Your task to perform on an android device: Open Android settings Image 0: 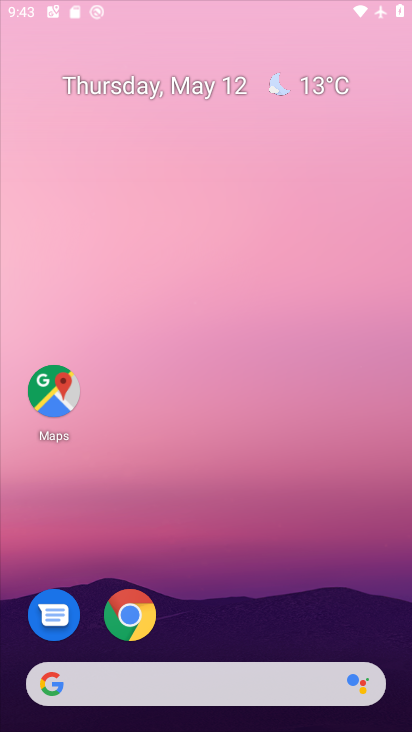
Step 0: click (288, 130)
Your task to perform on an android device: Open Android settings Image 1: 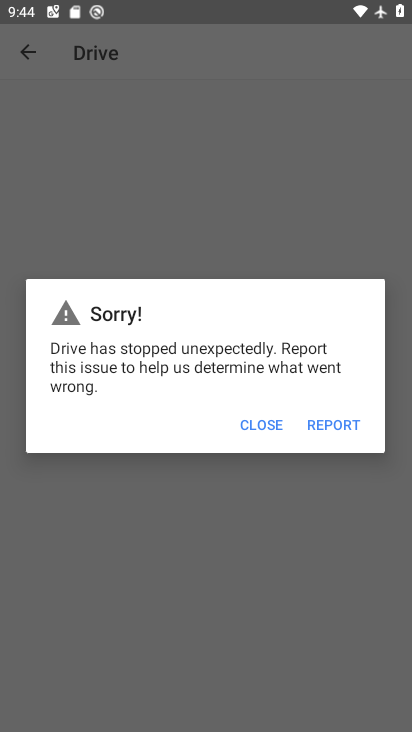
Step 1: press home button
Your task to perform on an android device: Open Android settings Image 2: 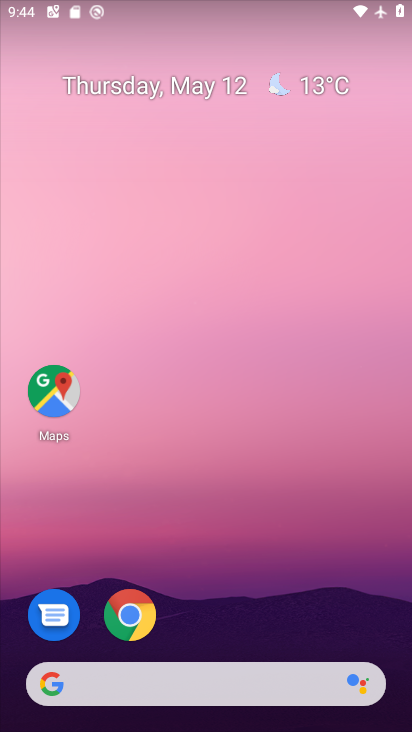
Step 2: drag from (216, 598) to (132, 19)
Your task to perform on an android device: Open Android settings Image 3: 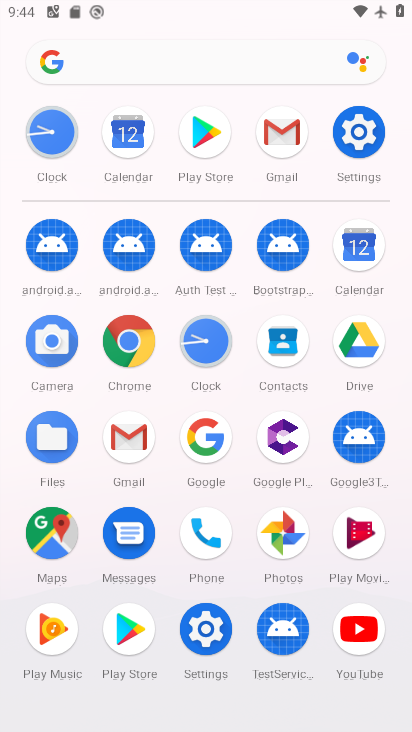
Step 3: click (355, 128)
Your task to perform on an android device: Open Android settings Image 4: 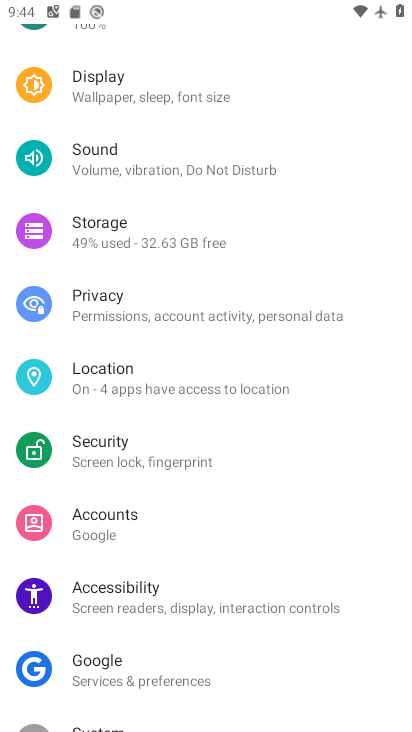
Step 4: task complete